Your task to perform on an android device: Go to Wikipedia Image 0: 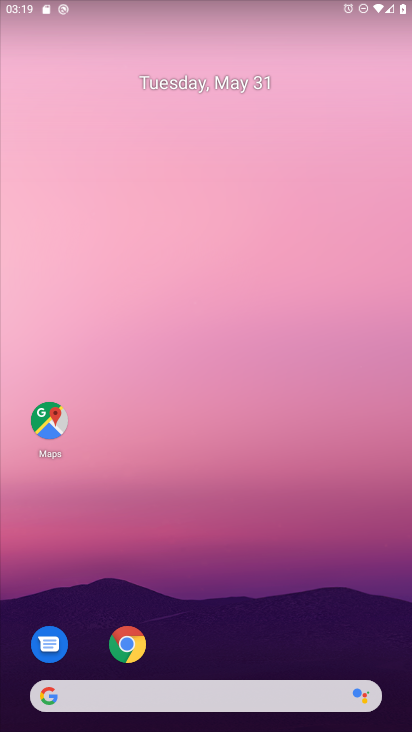
Step 0: click (124, 645)
Your task to perform on an android device: Go to Wikipedia Image 1: 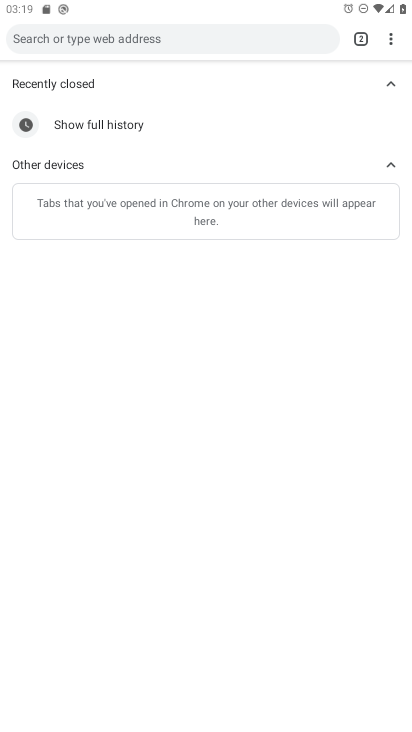
Step 1: click (205, 46)
Your task to perform on an android device: Go to Wikipedia Image 2: 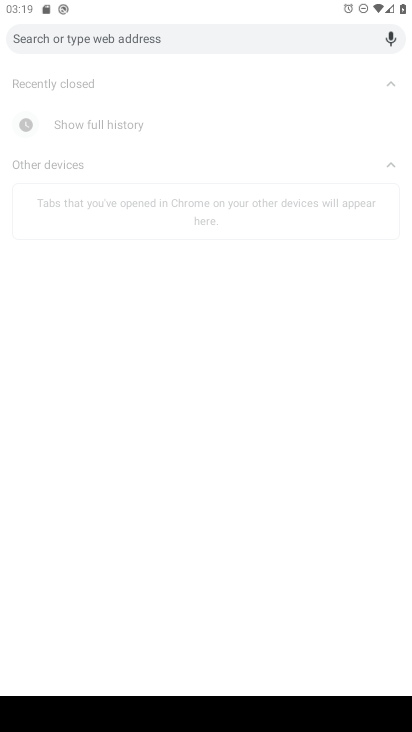
Step 2: type "wikipedia"
Your task to perform on an android device: Go to Wikipedia Image 3: 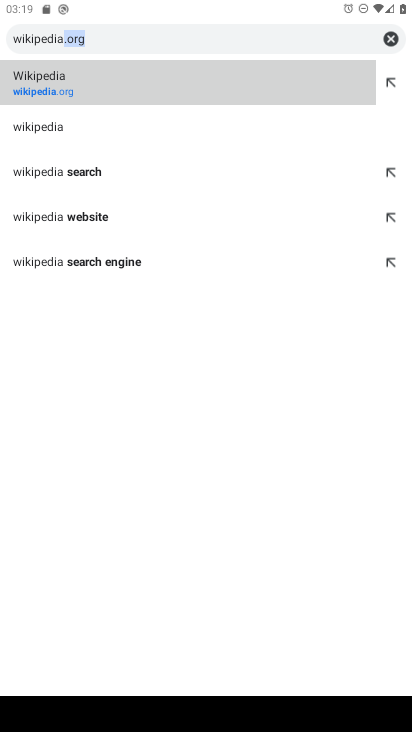
Step 3: click (41, 90)
Your task to perform on an android device: Go to Wikipedia Image 4: 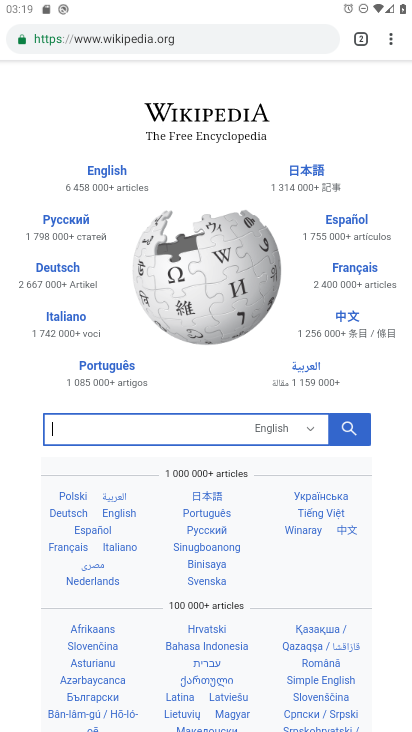
Step 4: task complete